Your task to perform on an android device: move an email to a new category in the gmail app Image 0: 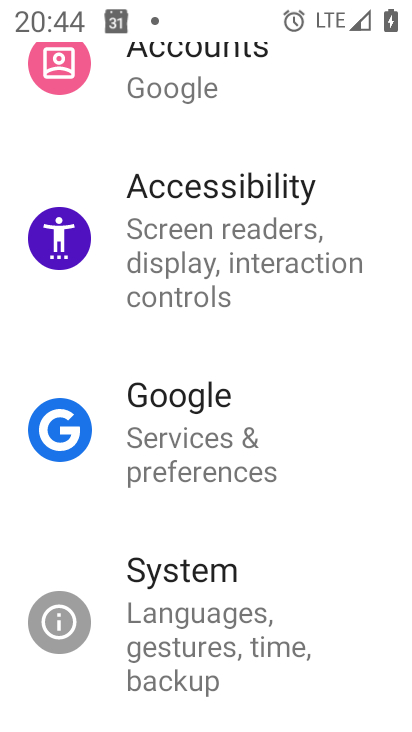
Step 0: press home button
Your task to perform on an android device: move an email to a new category in the gmail app Image 1: 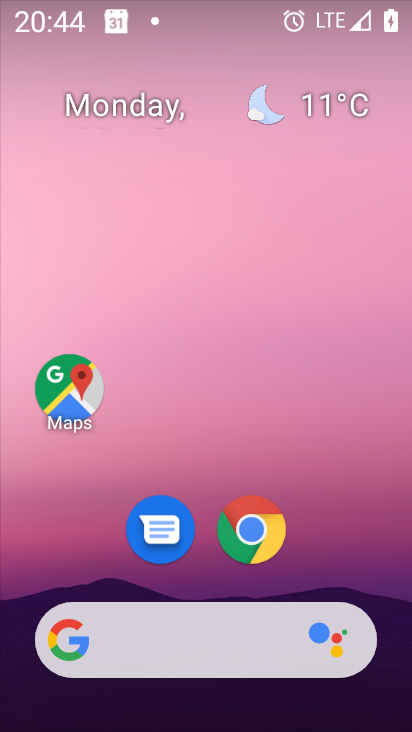
Step 1: drag from (209, 654) to (206, 127)
Your task to perform on an android device: move an email to a new category in the gmail app Image 2: 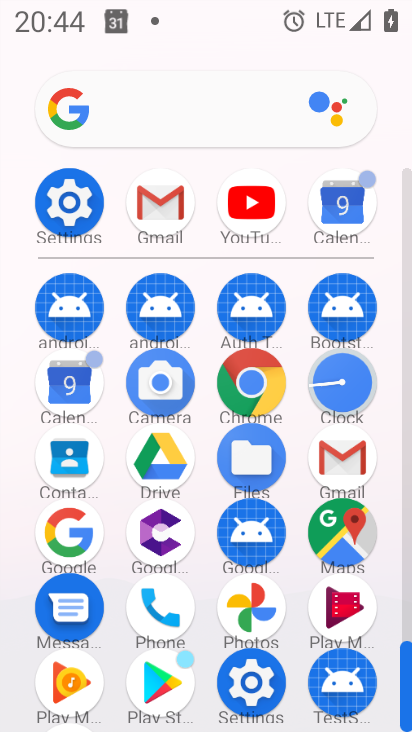
Step 2: click (353, 455)
Your task to perform on an android device: move an email to a new category in the gmail app Image 3: 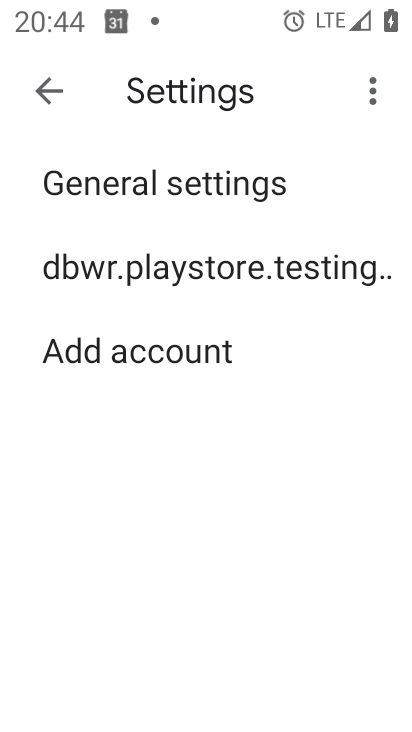
Step 3: click (55, 102)
Your task to perform on an android device: move an email to a new category in the gmail app Image 4: 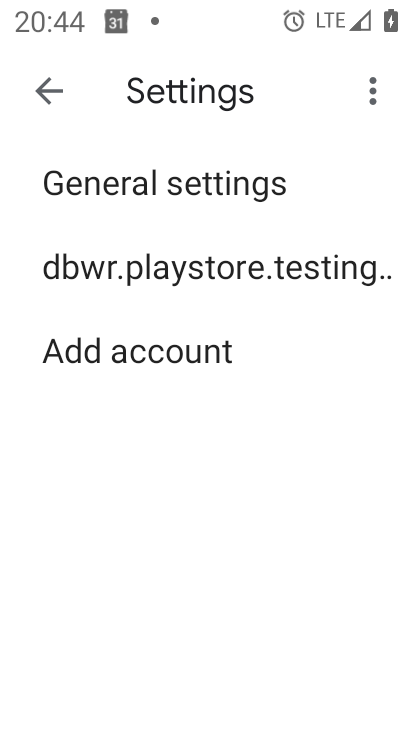
Step 4: click (55, 102)
Your task to perform on an android device: move an email to a new category in the gmail app Image 5: 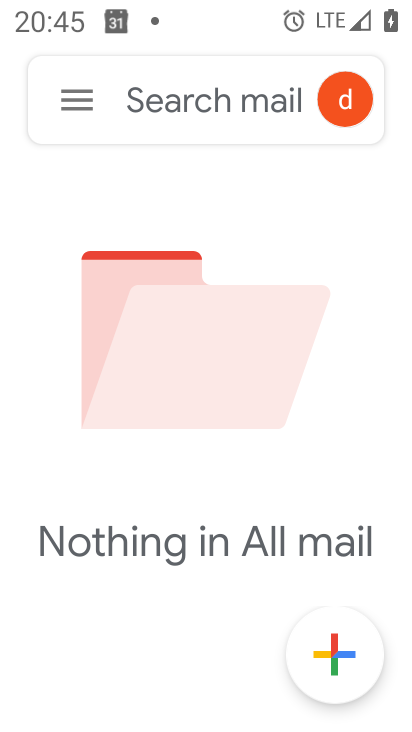
Step 5: task complete